Your task to perform on an android device: Search for Italian restaurants on Maps Image 0: 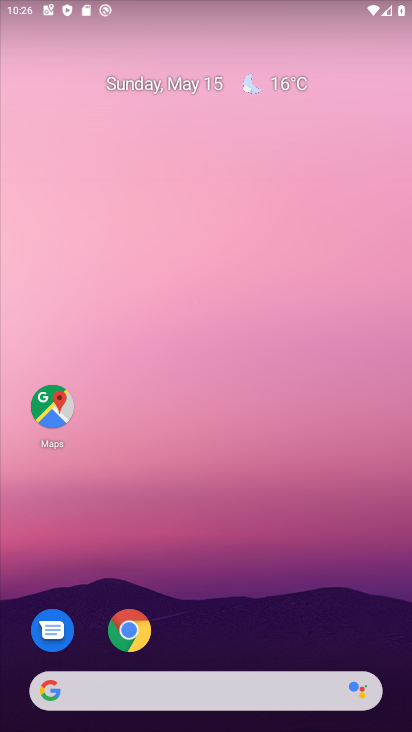
Step 0: click (66, 415)
Your task to perform on an android device: Search for Italian restaurants on Maps Image 1: 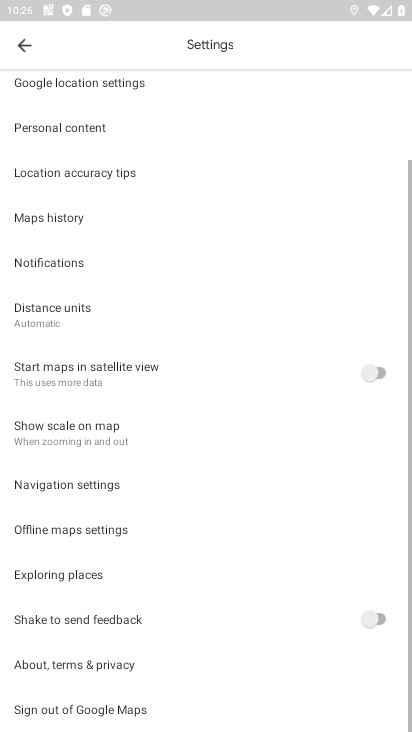
Step 1: click (27, 45)
Your task to perform on an android device: Search for Italian restaurants on Maps Image 2: 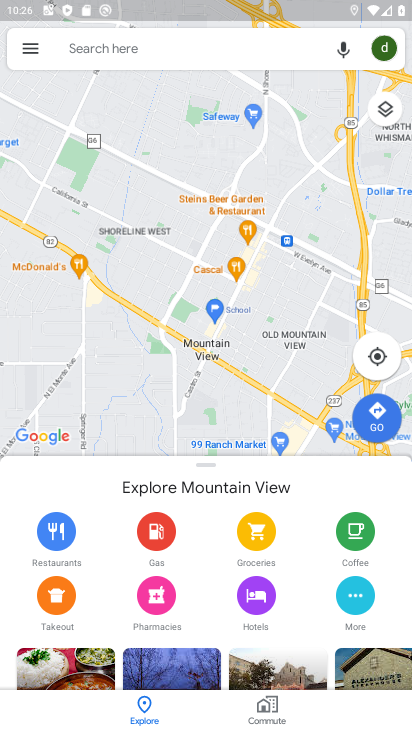
Step 2: click (278, 52)
Your task to perform on an android device: Search for Italian restaurants on Maps Image 3: 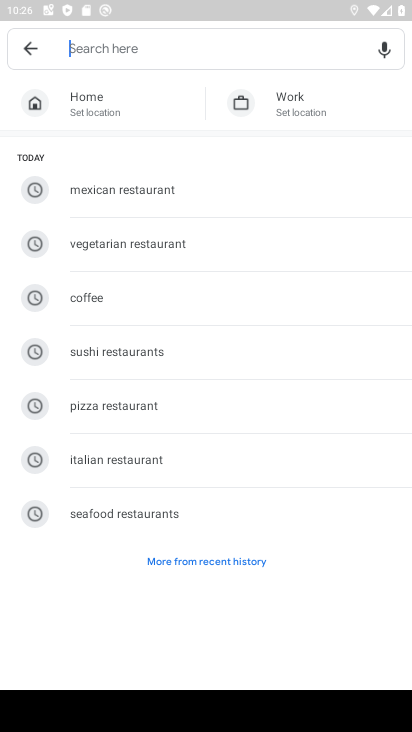
Step 3: type "Italian restaurants"
Your task to perform on an android device: Search for Italian restaurants on Maps Image 4: 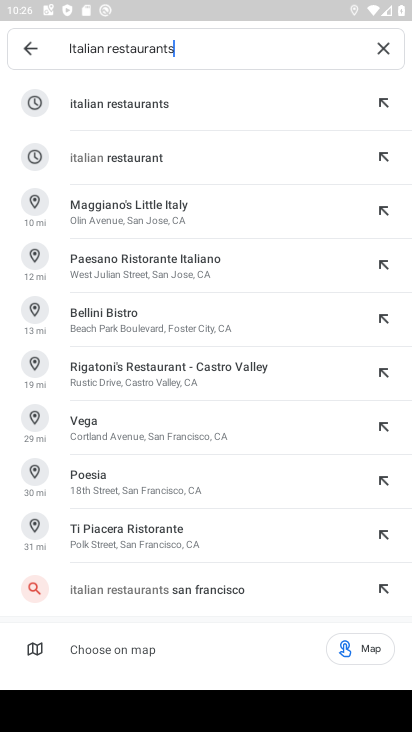
Step 4: click (158, 101)
Your task to perform on an android device: Search for Italian restaurants on Maps Image 5: 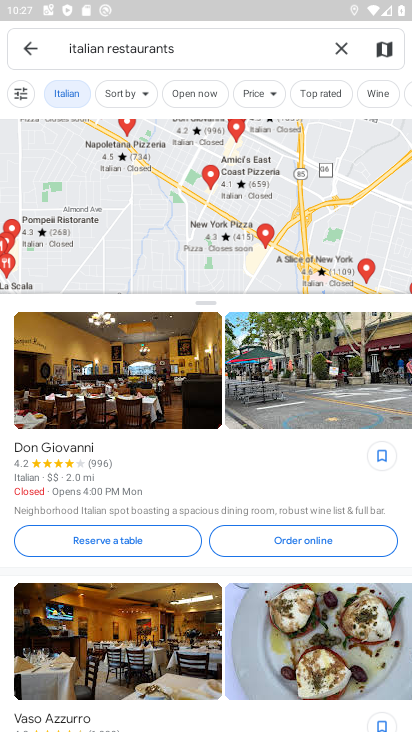
Step 5: task complete